Your task to perform on an android device: What's on my calendar today? Image 0: 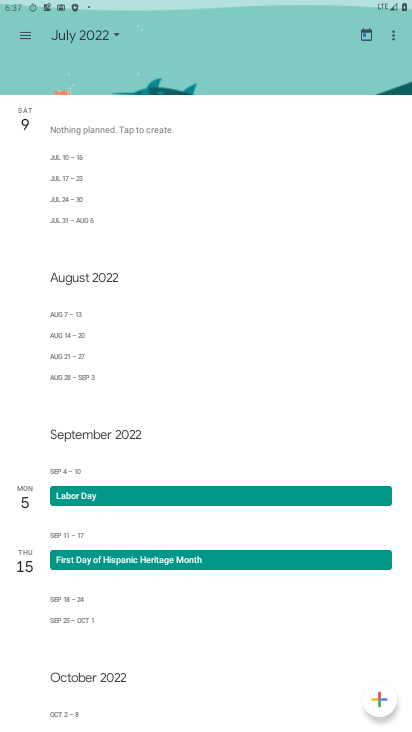
Step 0: press home button
Your task to perform on an android device: What's on my calendar today? Image 1: 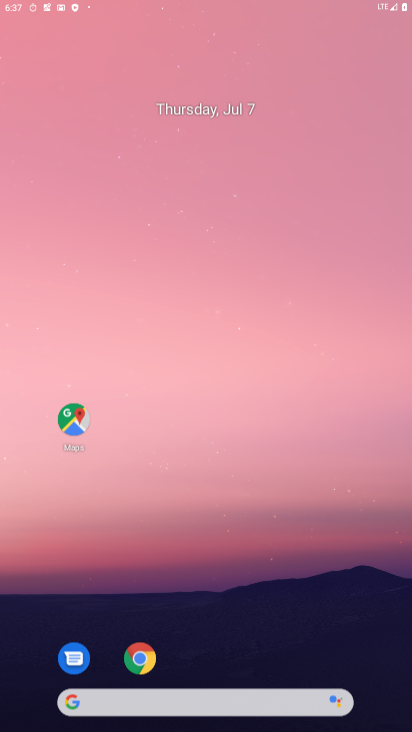
Step 1: drag from (369, 662) to (296, 10)
Your task to perform on an android device: What's on my calendar today? Image 2: 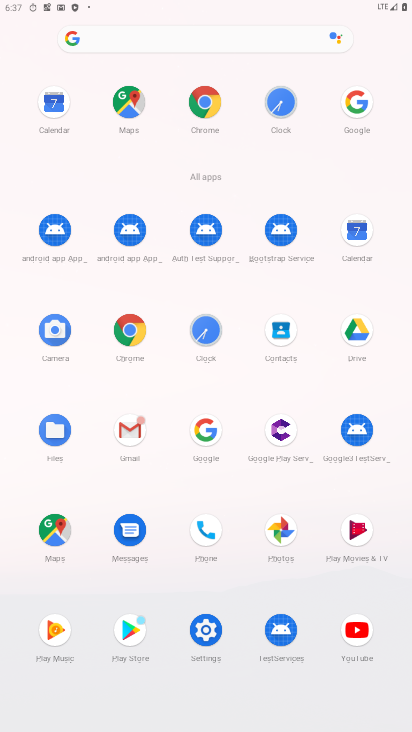
Step 2: click (357, 248)
Your task to perform on an android device: What's on my calendar today? Image 3: 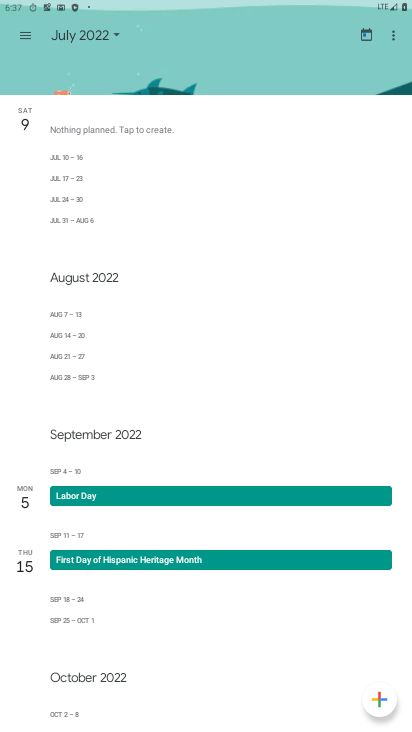
Step 3: click (33, 35)
Your task to perform on an android device: What's on my calendar today? Image 4: 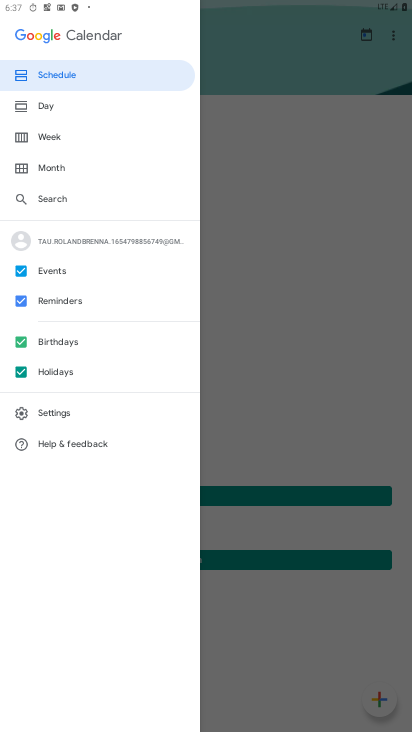
Step 4: click (269, 45)
Your task to perform on an android device: What's on my calendar today? Image 5: 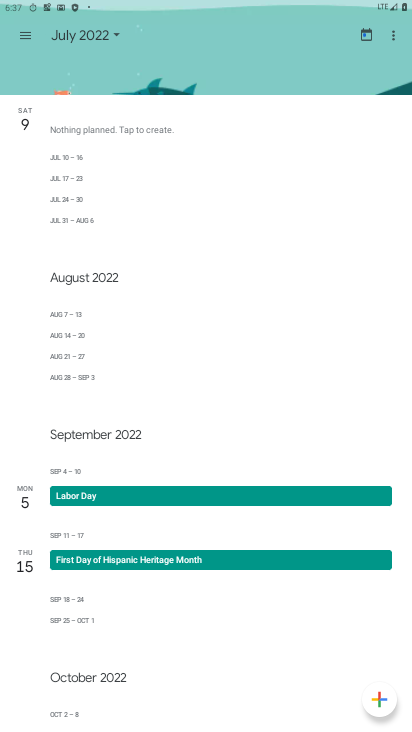
Step 5: click (95, 37)
Your task to perform on an android device: What's on my calendar today? Image 6: 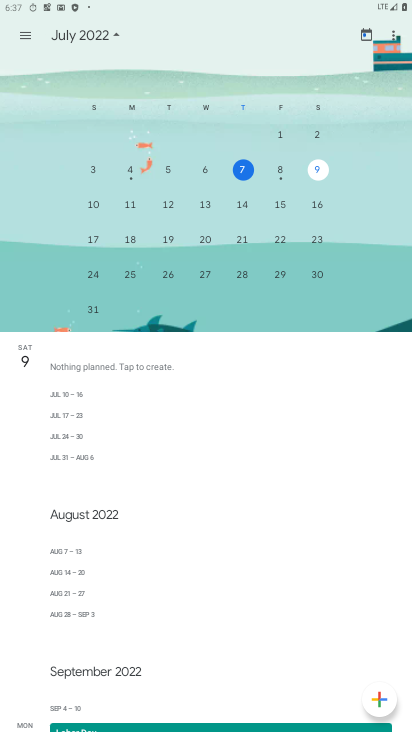
Step 6: click (279, 167)
Your task to perform on an android device: What's on my calendar today? Image 7: 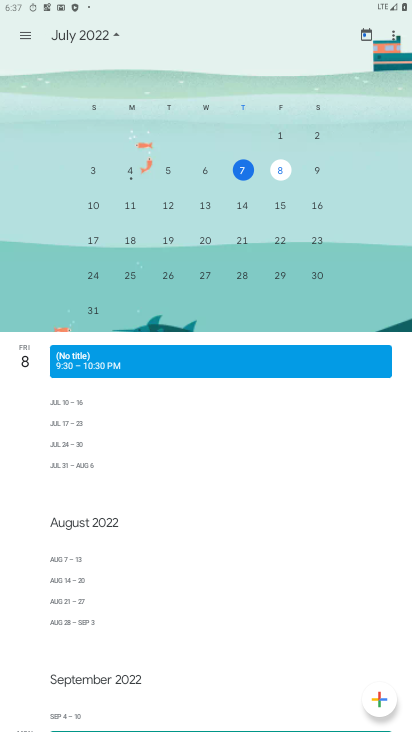
Step 7: task complete